Your task to perform on an android device: turn on priority inbox in the gmail app Image 0: 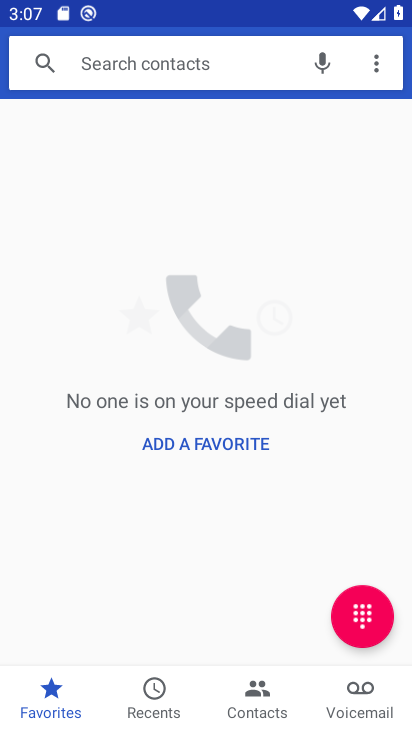
Step 0: press home button
Your task to perform on an android device: turn on priority inbox in the gmail app Image 1: 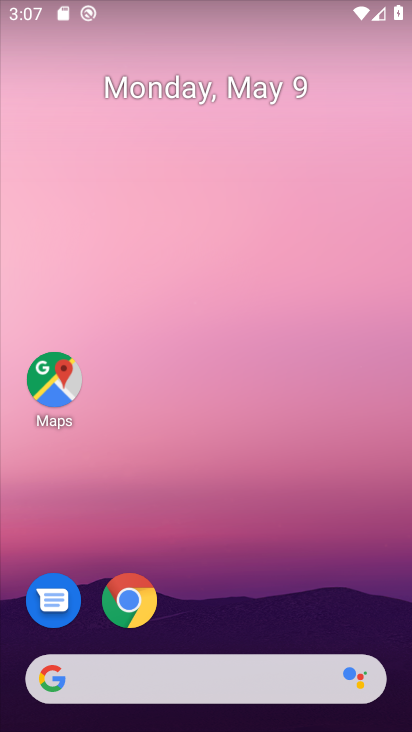
Step 1: drag from (284, 531) to (258, 227)
Your task to perform on an android device: turn on priority inbox in the gmail app Image 2: 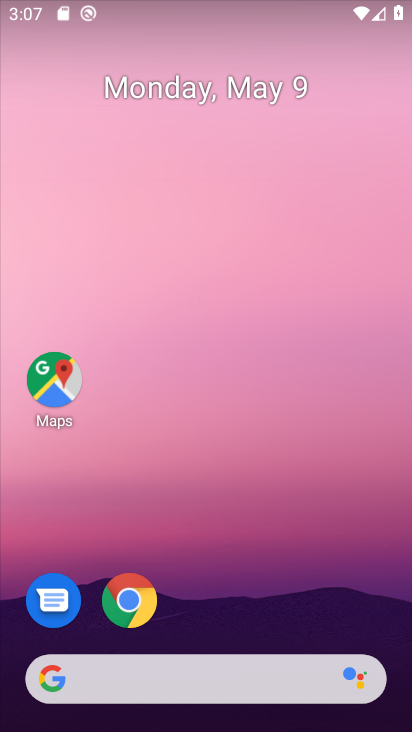
Step 2: drag from (221, 611) to (265, 106)
Your task to perform on an android device: turn on priority inbox in the gmail app Image 3: 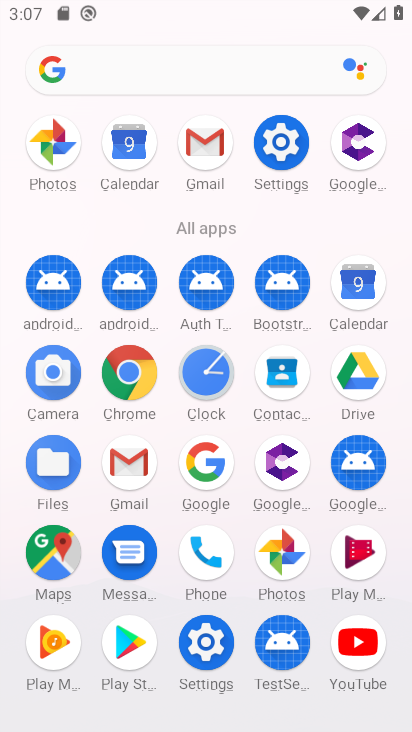
Step 3: click (118, 480)
Your task to perform on an android device: turn on priority inbox in the gmail app Image 4: 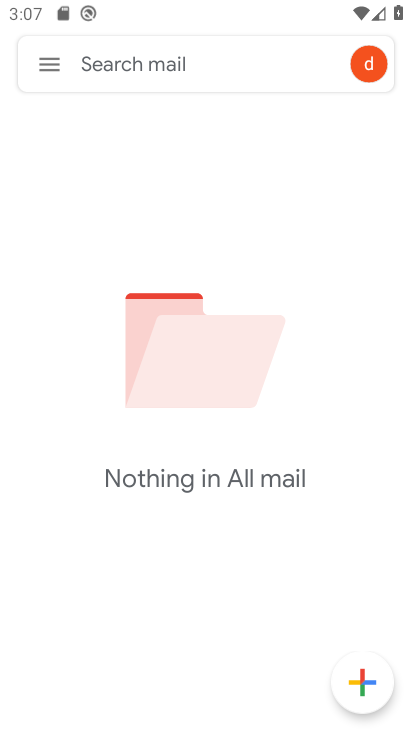
Step 4: click (55, 73)
Your task to perform on an android device: turn on priority inbox in the gmail app Image 5: 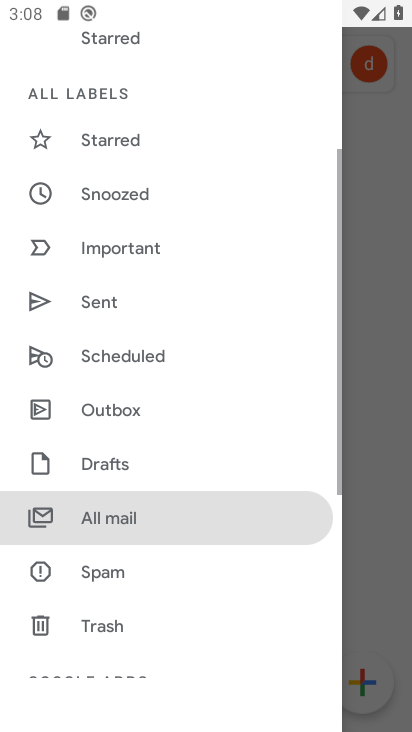
Step 5: drag from (165, 587) to (165, 263)
Your task to perform on an android device: turn on priority inbox in the gmail app Image 6: 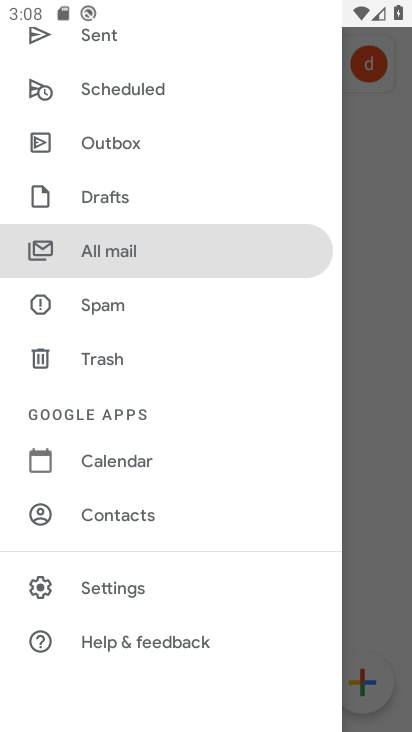
Step 6: click (141, 591)
Your task to perform on an android device: turn on priority inbox in the gmail app Image 7: 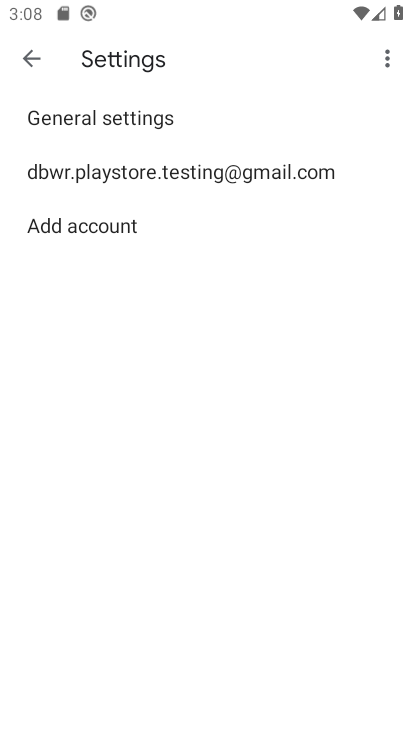
Step 7: click (137, 157)
Your task to perform on an android device: turn on priority inbox in the gmail app Image 8: 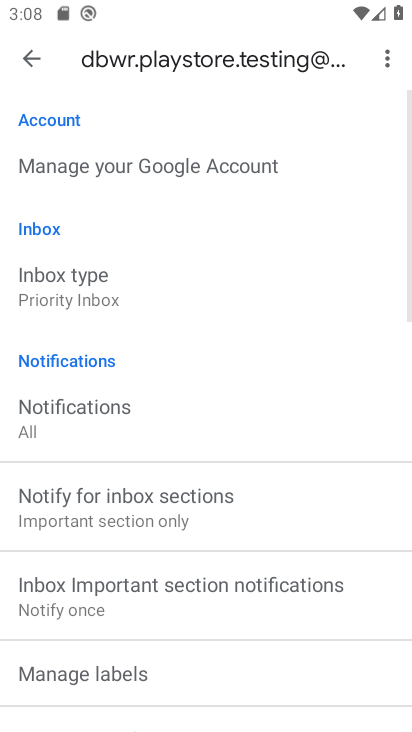
Step 8: click (129, 299)
Your task to perform on an android device: turn on priority inbox in the gmail app Image 9: 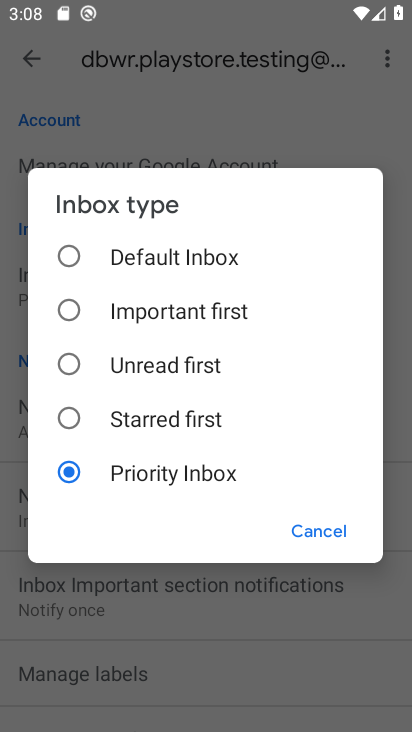
Step 9: task complete